Your task to perform on an android device: Open the Play Movies app and select the watchlist tab. Image 0: 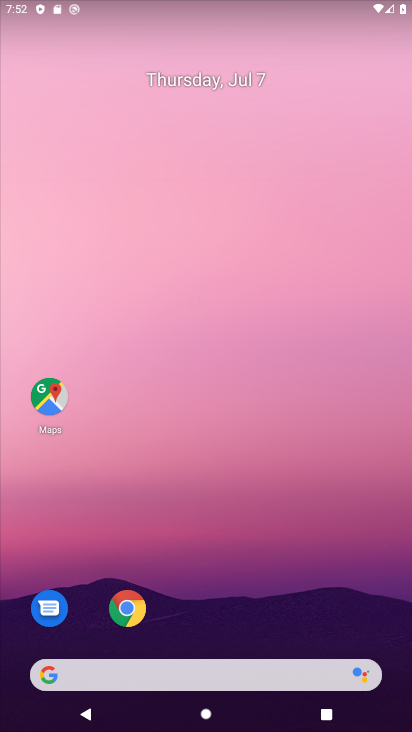
Step 0: drag from (384, 625) to (370, 187)
Your task to perform on an android device: Open the Play Movies app and select the watchlist tab. Image 1: 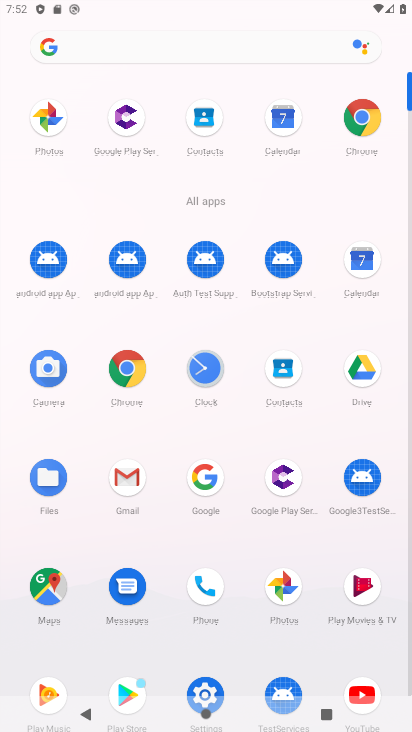
Step 1: click (364, 587)
Your task to perform on an android device: Open the Play Movies app and select the watchlist tab. Image 2: 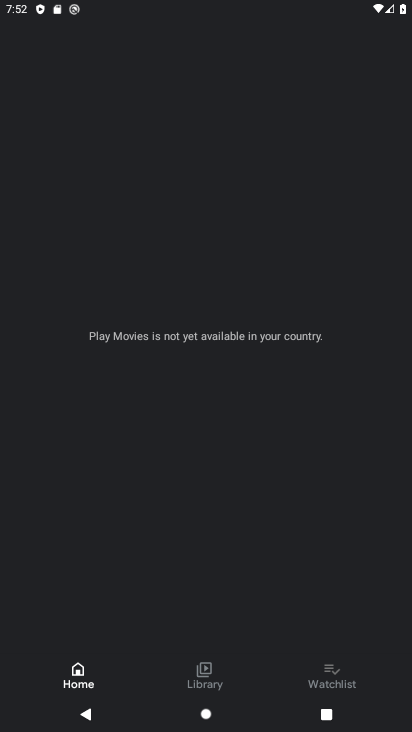
Step 2: click (342, 675)
Your task to perform on an android device: Open the Play Movies app and select the watchlist tab. Image 3: 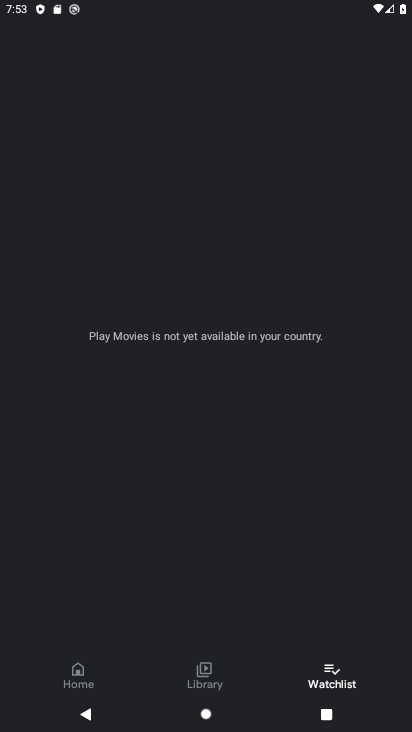
Step 3: task complete